Your task to perform on an android device: What is the capital of Norway? Image 0: 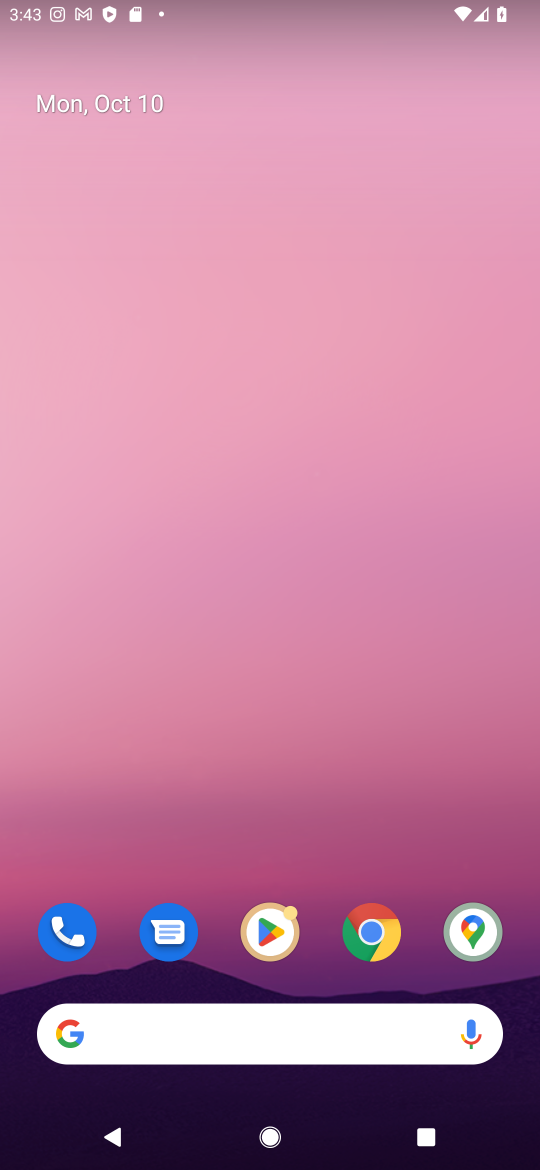
Step 0: press home button
Your task to perform on an android device: What is the capital of Norway? Image 1: 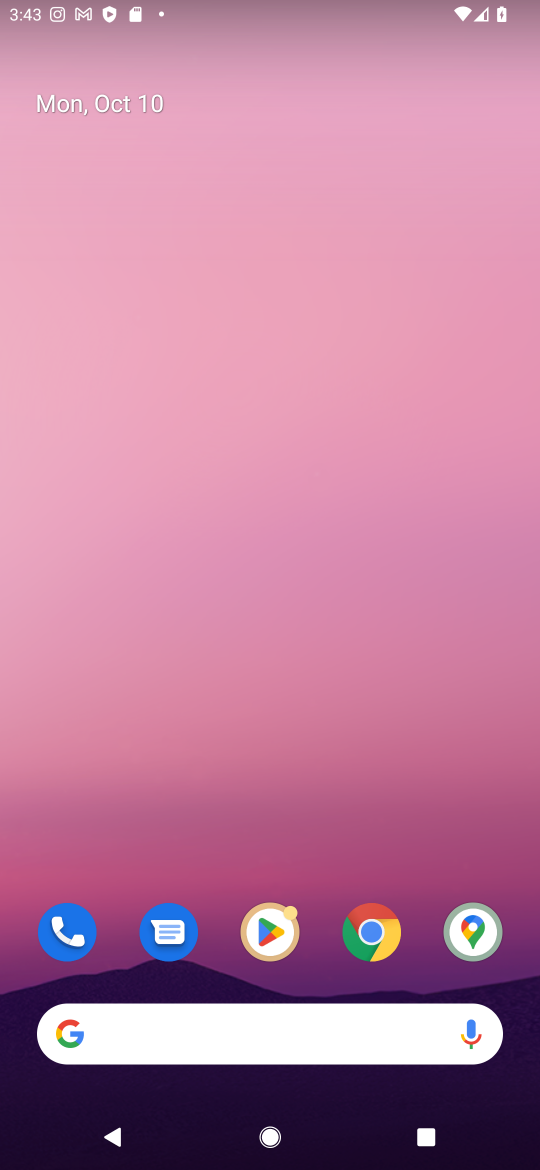
Step 1: click (314, 1031)
Your task to perform on an android device: What is the capital of Norway? Image 2: 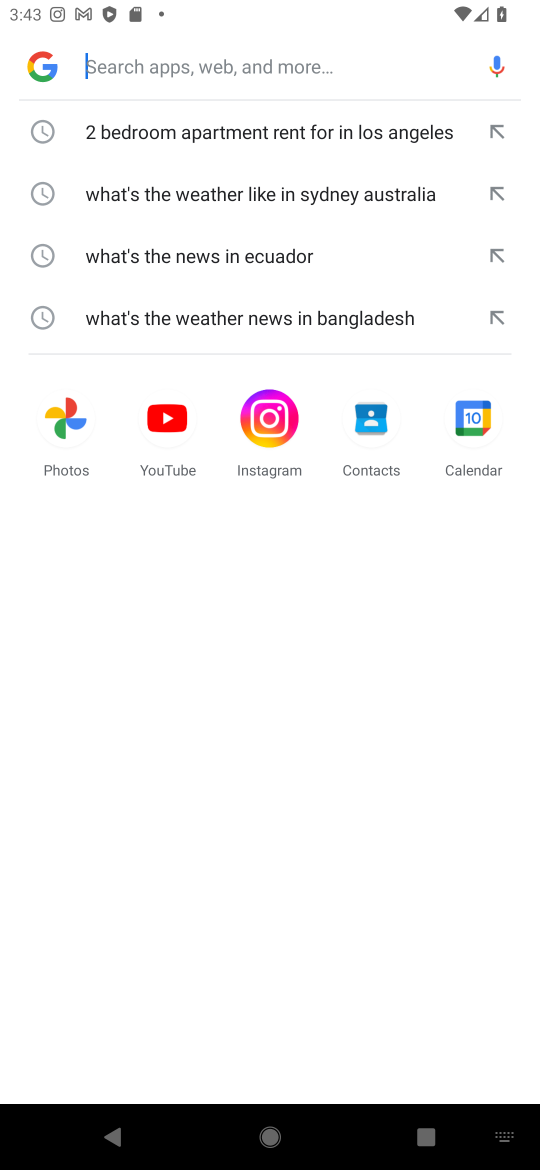
Step 2: type "What is the capital of Norway"
Your task to perform on an android device: What is the capital of Norway? Image 3: 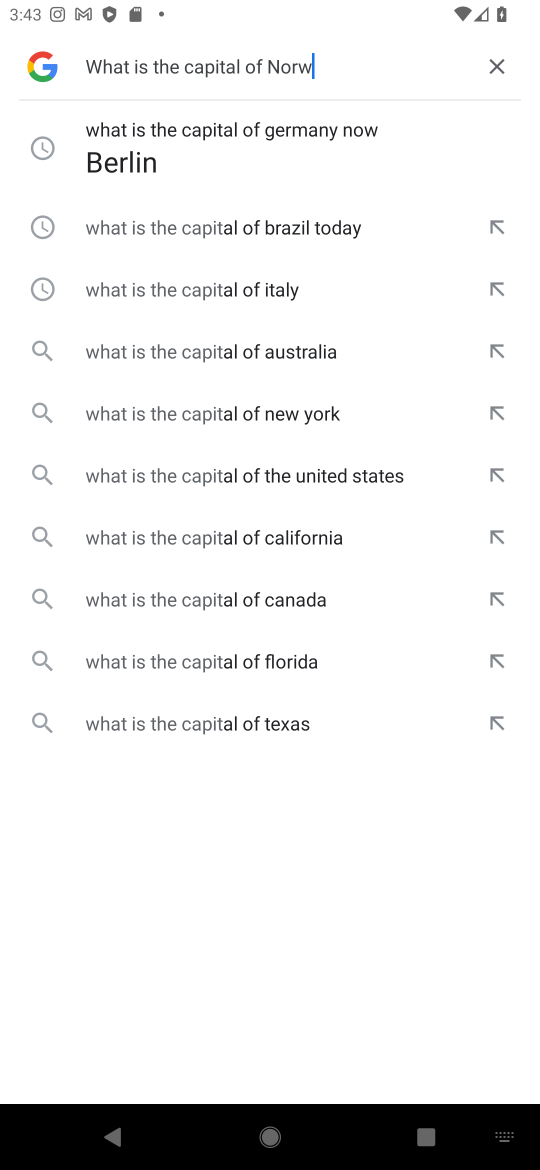
Step 3: press enter
Your task to perform on an android device: What is the capital of Norway? Image 4: 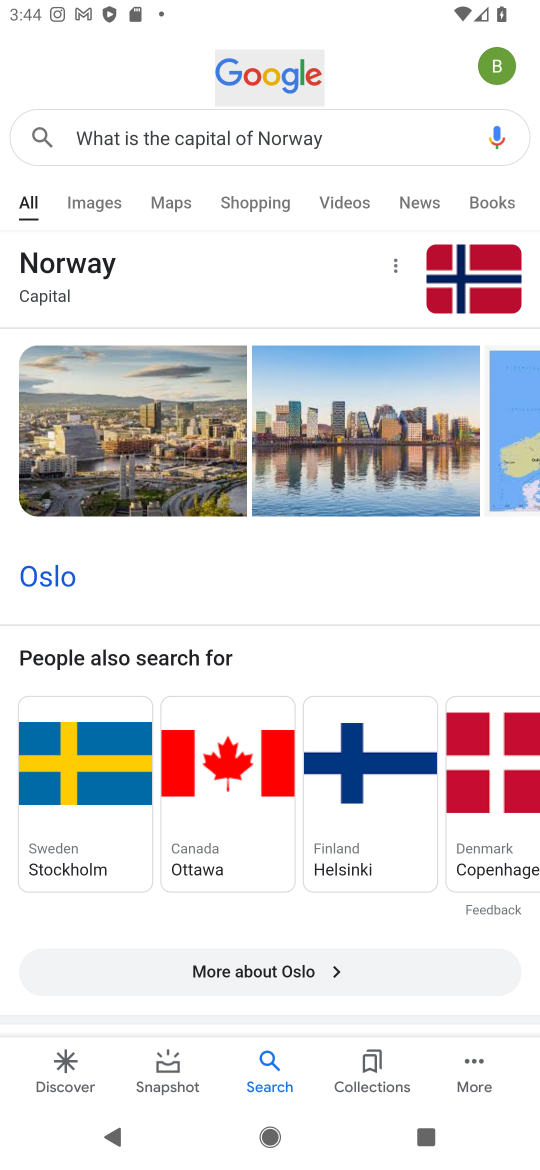
Step 4: task complete